Your task to perform on an android device: open app "Walmart Shopping & Grocery" Image 0: 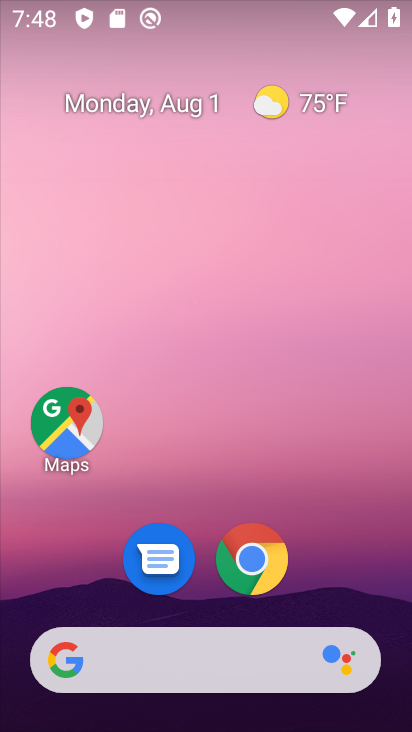
Step 0: drag from (217, 639) to (227, 359)
Your task to perform on an android device: open app "Walmart Shopping & Grocery" Image 1: 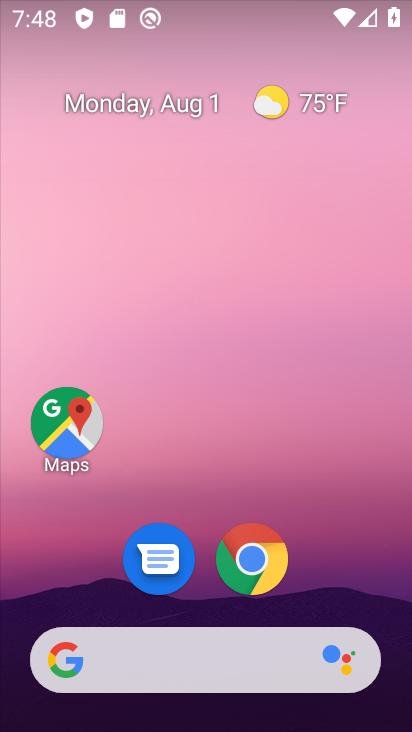
Step 1: drag from (204, 669) to (303, 119)
Your task to perform on an android device: open app "Walmart Shopping & Grocery" Image 2: 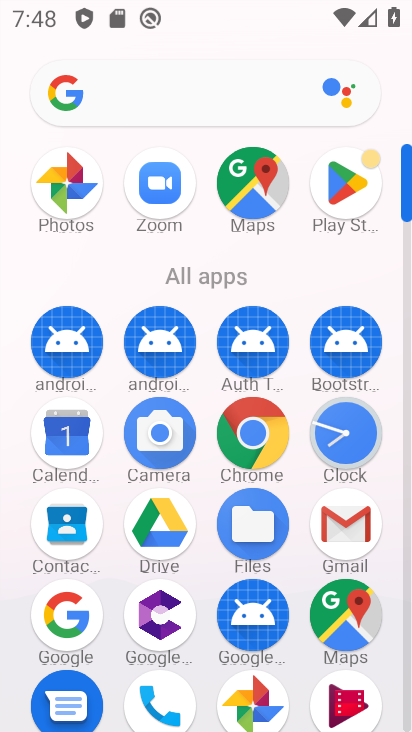
Step 2: click (347, 199)
Your task to perform on an android device: open app "Walmart Shopping & Grocery" Image 3: 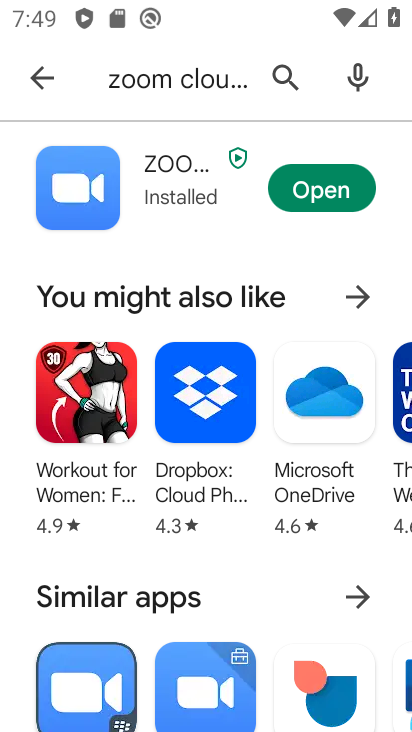
Step 3: click (288, 80)
Your task to perform on an android device: open app "Walmart Shopping & Grocery" Image 4: 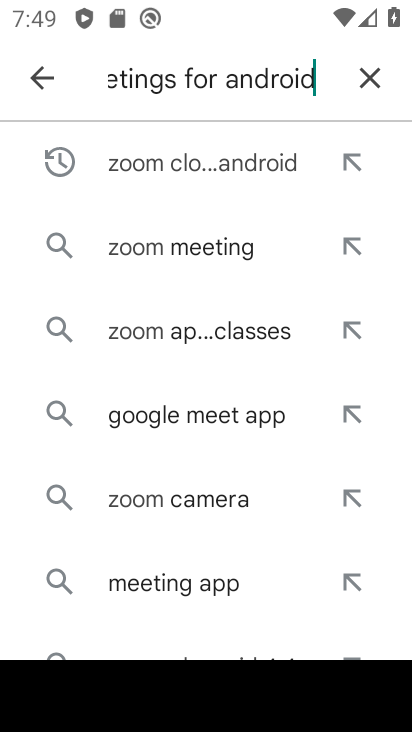
Step 4: click (370, 82)
Your task to perform on an android device: open app "Walmart Shopping & Grocery" Image 5: 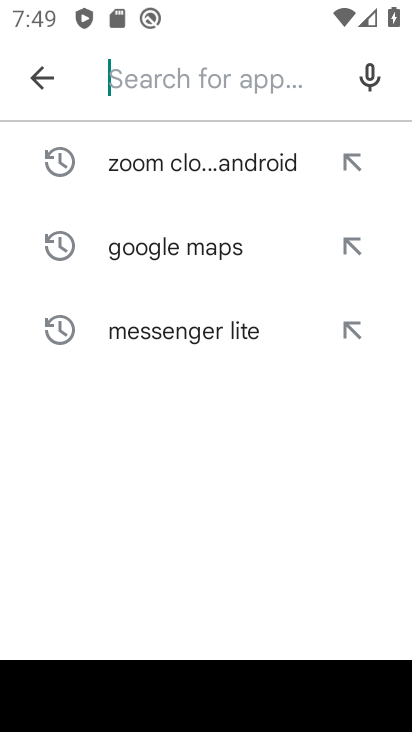
Step 5: type "Walmart Shopping & Grocery"
Your task to perform on an android device: open app "Walmart Shopping & Grocery" Image 6: 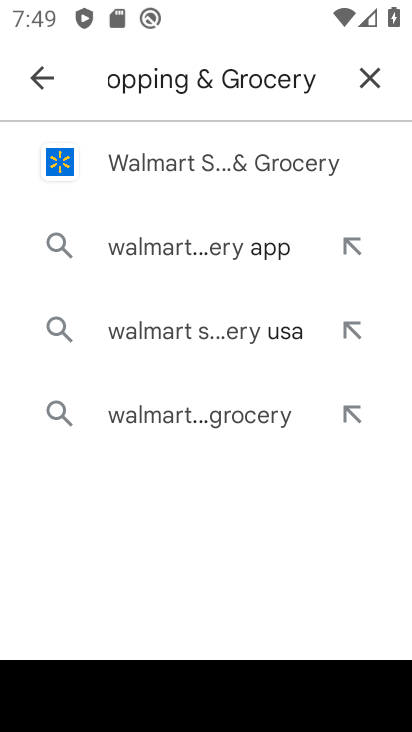
Step 6: click (160, 158)
Your task to perform on an android device: open app "Walmart Shopping & Grocery" Image 7: 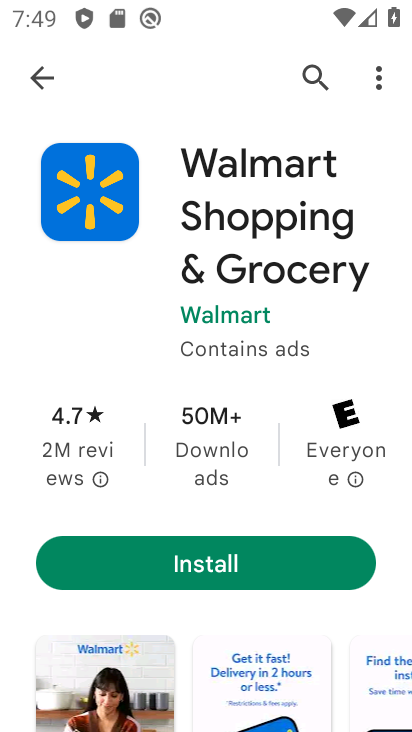
Step 7: task complete